Your task to perform on an android device: change alarm snooze length Image 0: 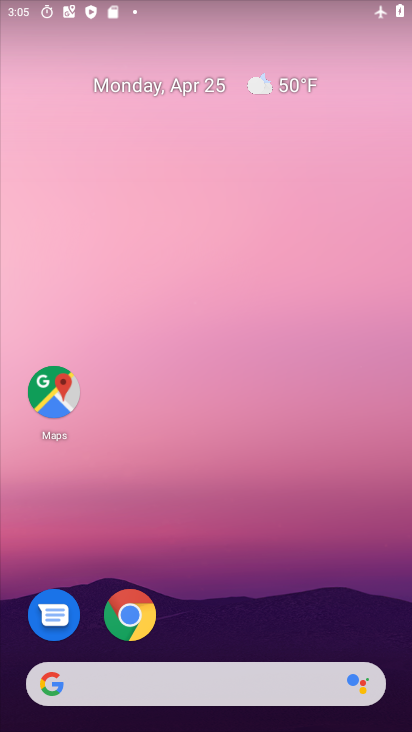
Step 0: drag from (236, 721) to (237, 314)
Your task to perform on an android device: change alarm snooze length Image 1: 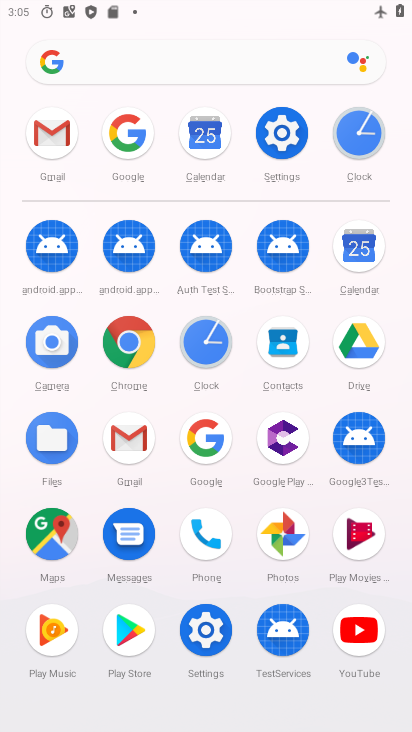
Step 1: click (357, 138)
Your task to perform on an android device: change alarm snooze length Image 2: 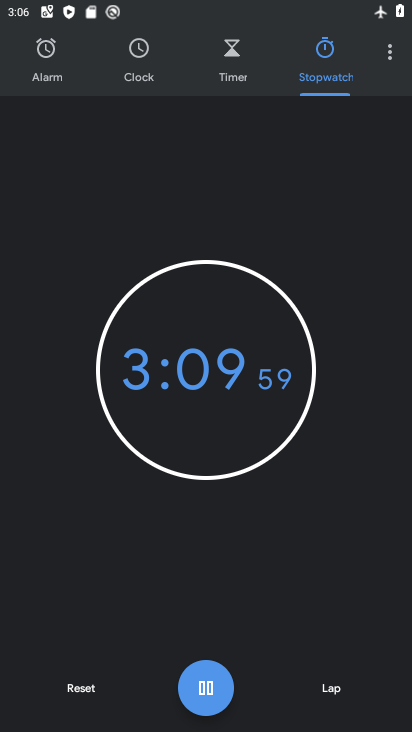
Step 2: click (392, 54)
Your task to perform on an android device: change alarm snooze length Image 3: 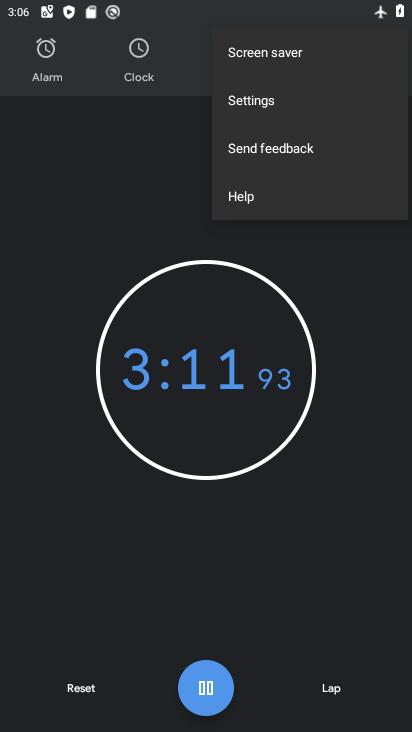
Step 3: click (251, 101)
Your task to perform on an android device: change alarm snooze length Image 4: 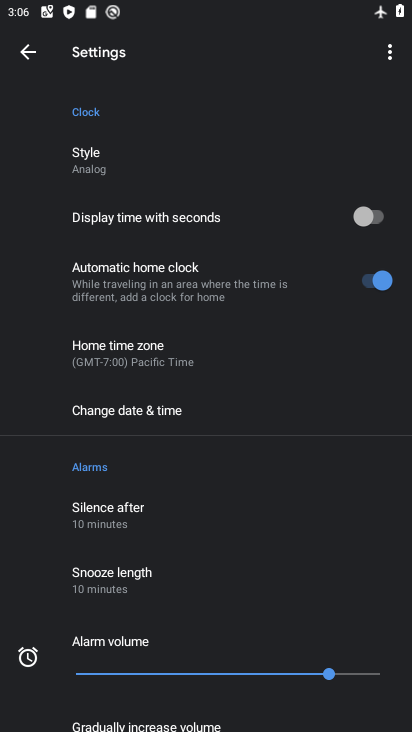
Step 4: click (105, 581)
Your task to perform on an android device: change alarm snooze length Image 5: 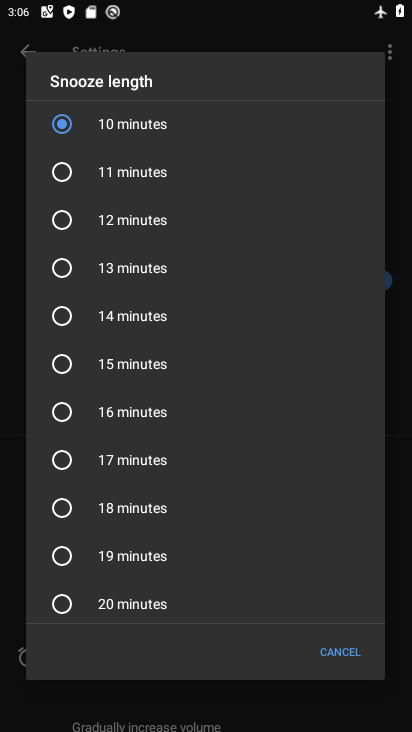
Step 5: click (56, 506)
Your task to perform on an android device: change alarm snooze length Image 6: 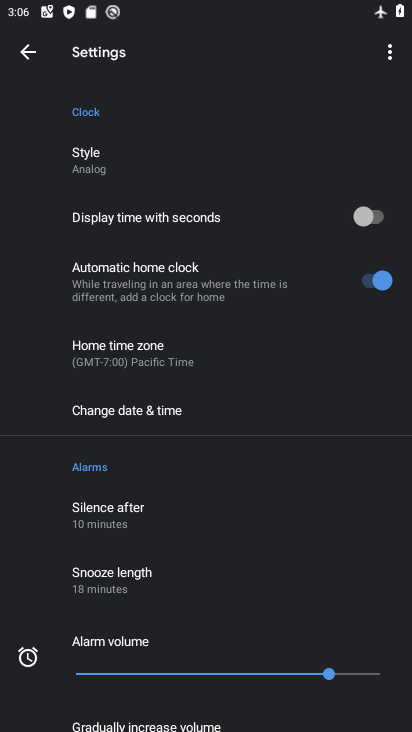
Step 6: task complete